Your task to perform on an android device: toggle priority inbox in the gmail app Image 0: 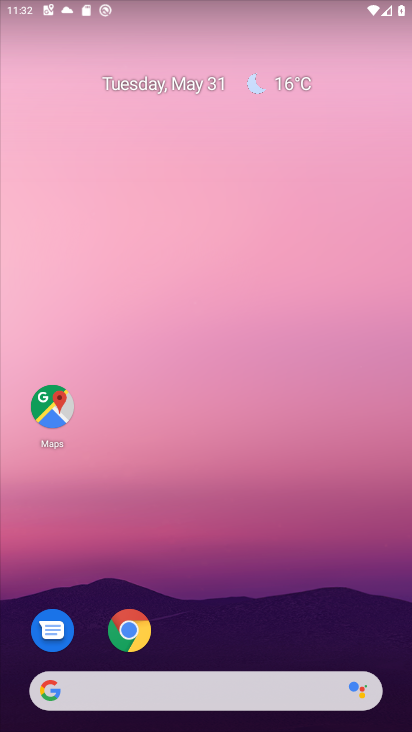
Step 0: drag from (307, 605) to (289, 169)
Your task to perform on an android device: toggle priority inbox in the gmail app Image 1: 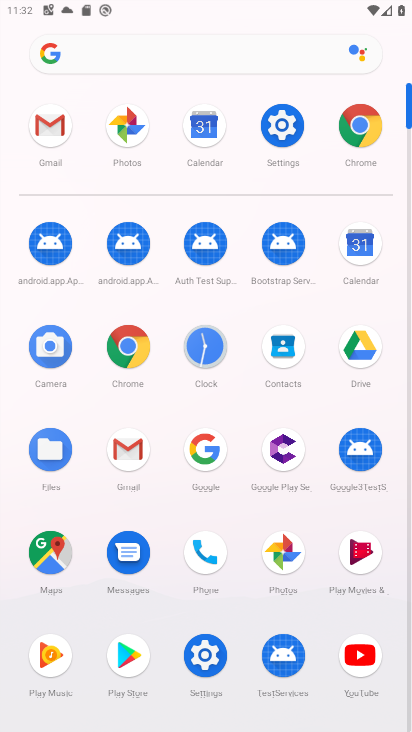
Step 1: click (61, 137)
Your task to perform on an android device: toggle priority inbox in the gmail app Image 2: 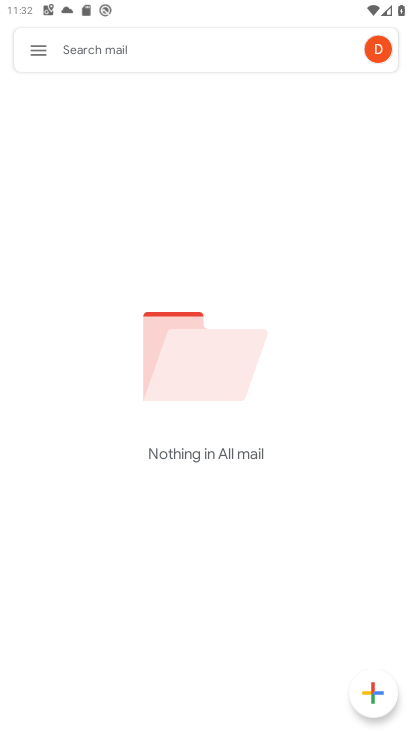
Step 2: click (47, 49)
Your task to perform on an android device: toggle priority inbox in the gmail app Image 3: 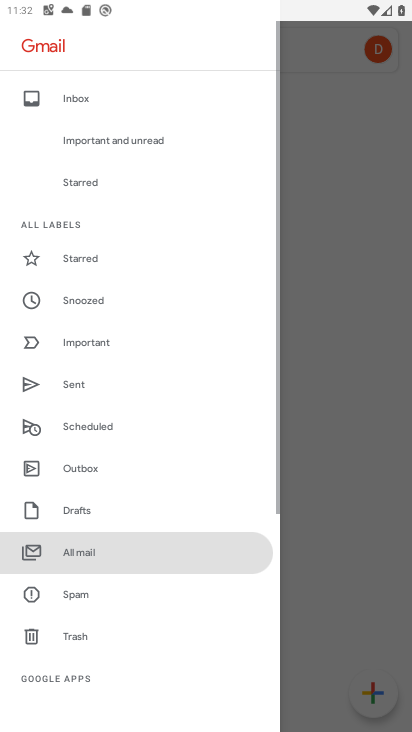
Step 3: drag from (89, 631) to (166, 216)
Your task to perform on an android device: toggle priority inbox in the gmail app Image 4: 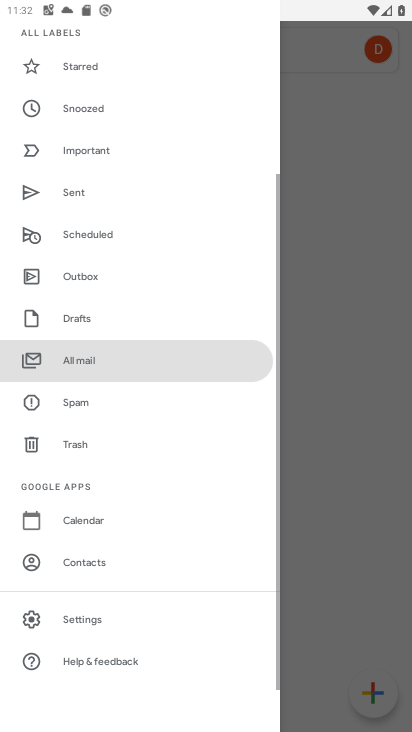
Step 4: click (96, 623)
Your task to perform on an android device: toggle priority inbox in the gmail app Image 5: 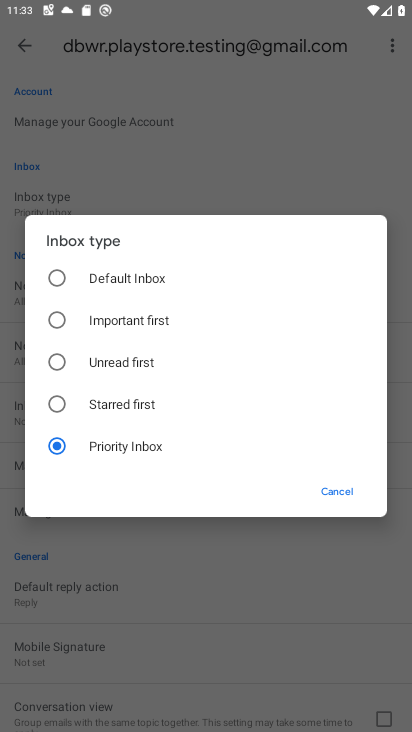
Step 5: click (125, 283)
Your task to perform on an android device: toggle priority inbox in the gmail app Image 6: 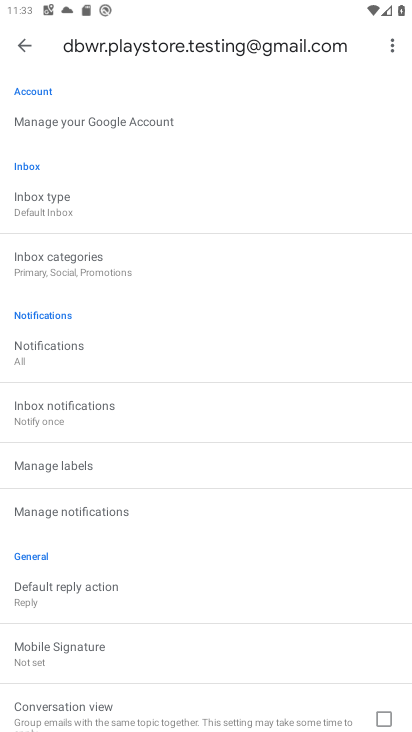
Step 6: task complete